Your task to perform on an android device: see sites visited before in the chrome app Image 0: 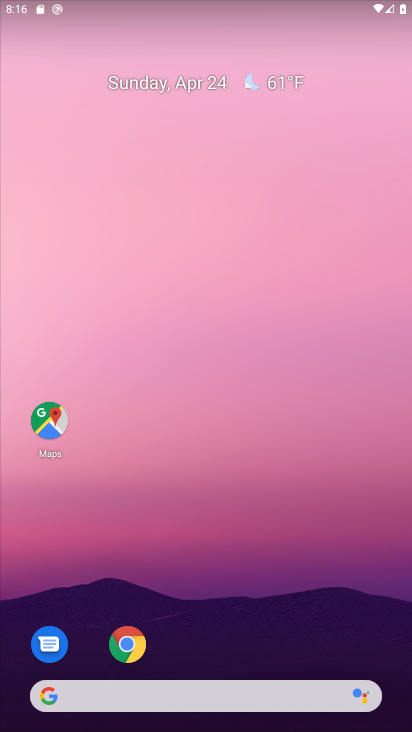
Step 0: drag from (226, 657) to (234, 93)
Your task to perform on an android device: see sites visited before in the chrome app Image 1: 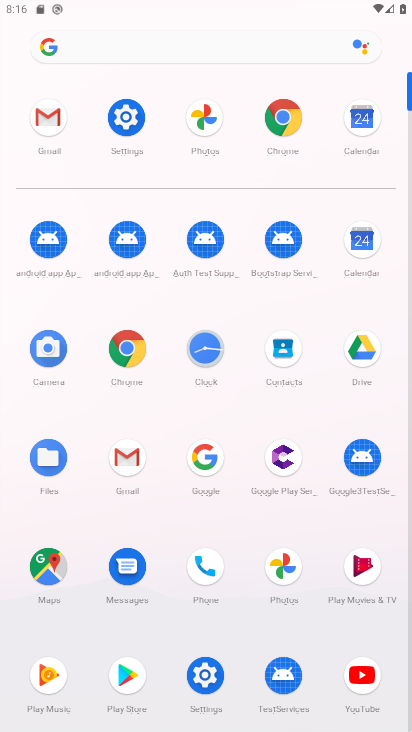
Step 1: click (123, 346)
Your task to perform on an android device: see sites visited before in the chrome app Image 2: 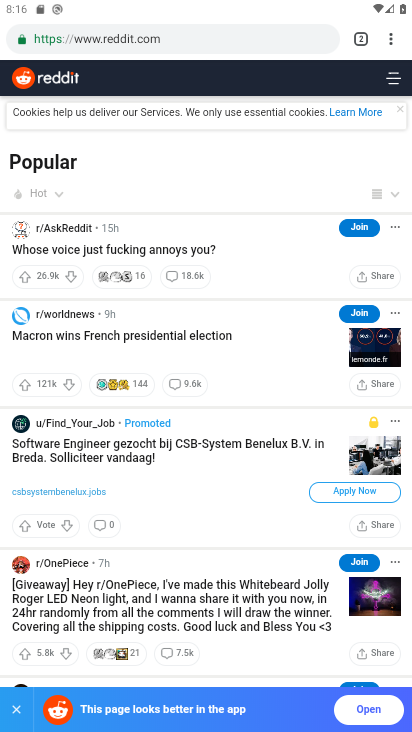
Step 2: click (390, 39)
Your task to perform on an android device: see sites visited before in the chrome app Image 3: 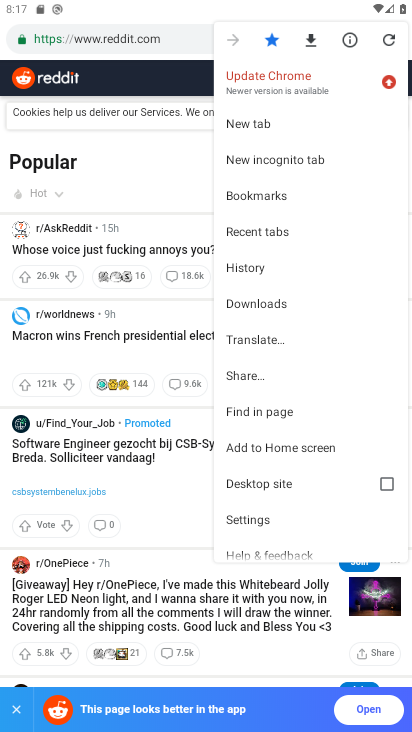
Step 3: click (271, 265)
Your task to perform on an android device: see sites visited before in the chrome app Image 4: 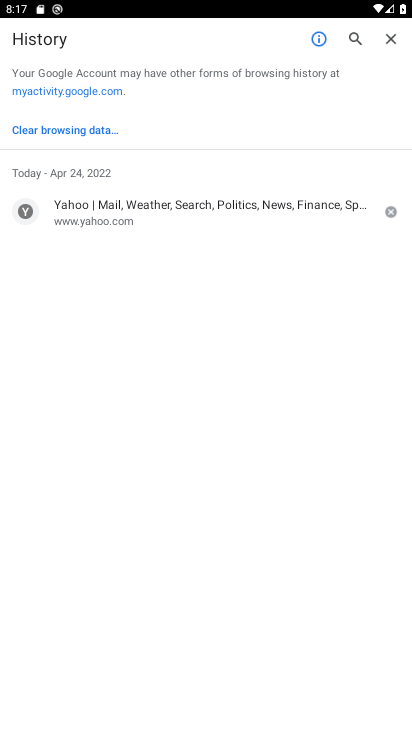
Step 4: task complete